Your task to perform on an android device: see tabs open on other devices in the chrome app Image 0: 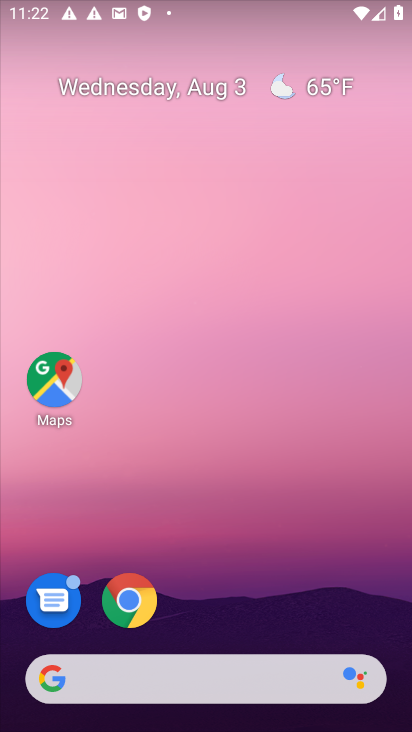
Step 0: drag from (254, 636) to (205, 117)
Your task to perform on an android device: see tabs open on other devices in the chrome app Image 1: 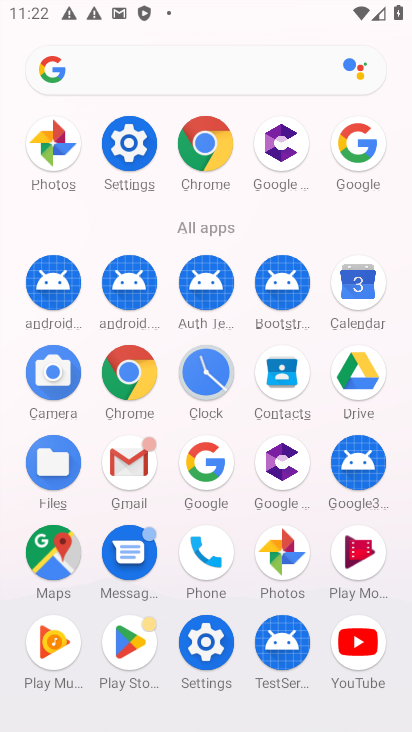
Step 1: click (200, 127)
Your task to perform on an android device: see tabs open on other devices in the chrome app Image 2: 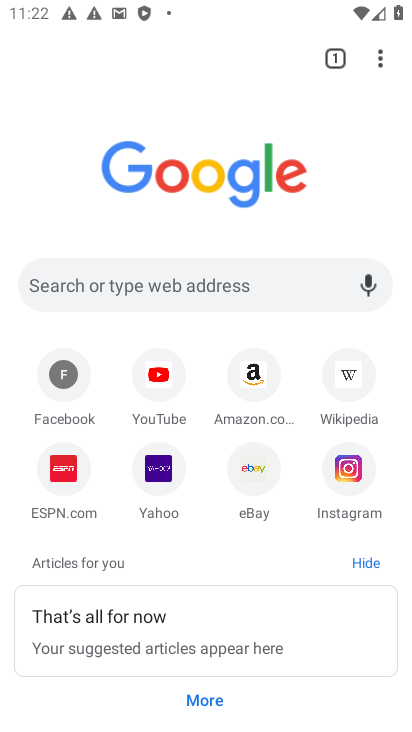
Step 2: click (329, 58)
Your task to perform on an android device: see tabs open on other devices in the chrome app Image 3: 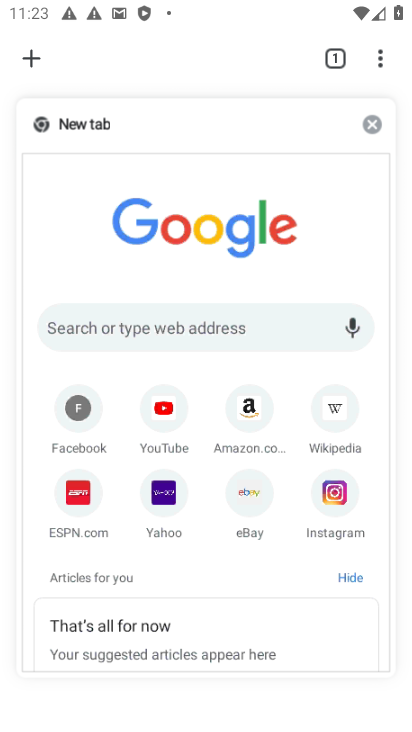
Step 3: task complete